Your task to perform on an android device: Show me productivity apps on the Play Store Image 0: 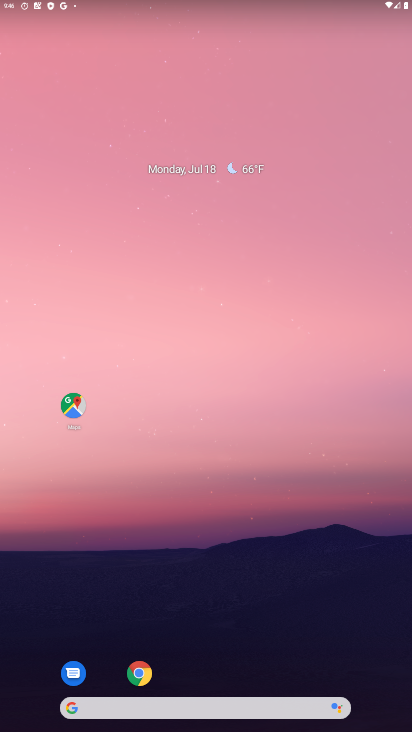
Step 0: drag from (226, 609) to (238, 116)
Your task to perform on an android device: Show me productivity apps on the Play Store Image 1: 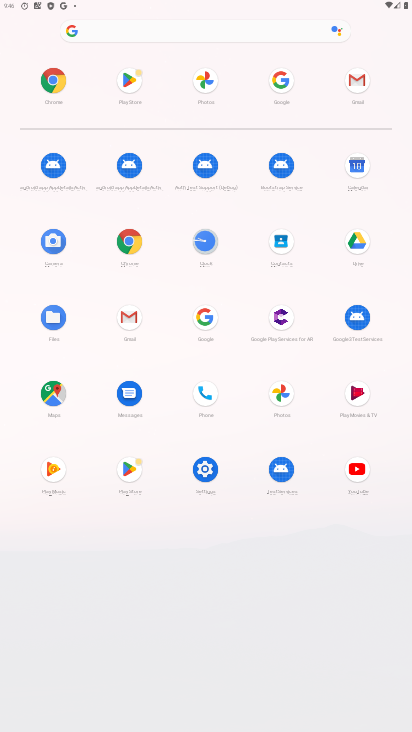
Step 1: click (132, 466)
Your task to perform on an android device: Show me productivity apps on the Play Store Image 2: 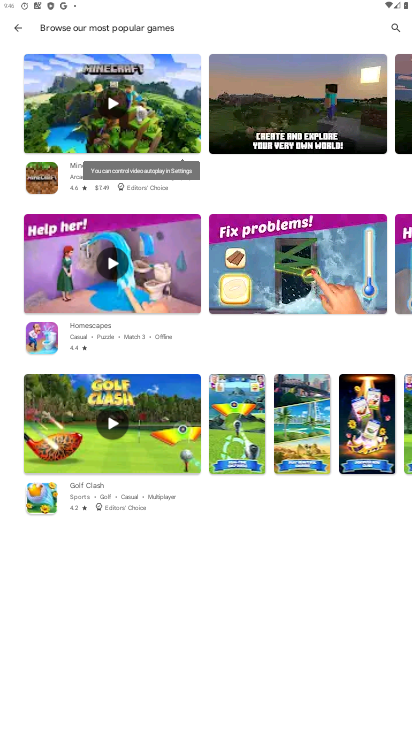
Step 2: press back button
Your task to perform on an android device: Show me productivity apps on the Play Store Image 3: 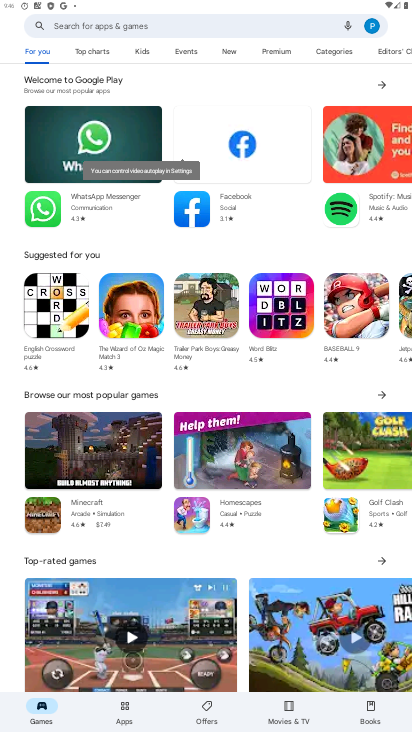
Step 3: click (130, 711)
Your task to perform on an android device: Show me productivity apps on the Play Store Image 4: 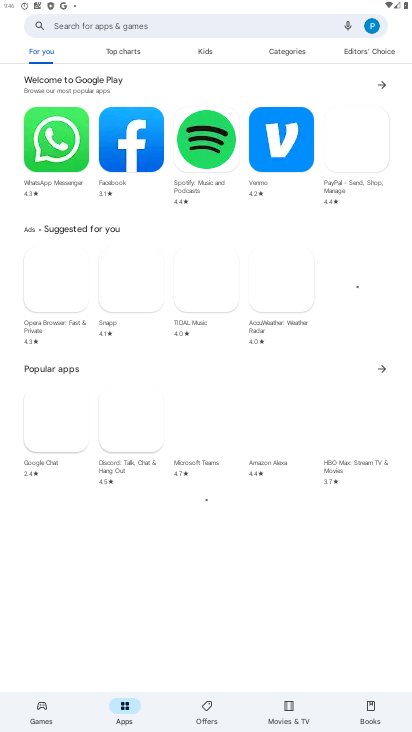
Step 4: click (278, 57)
Your task to perform on an android device: Show me productivity apps on the Play Store Image 5: 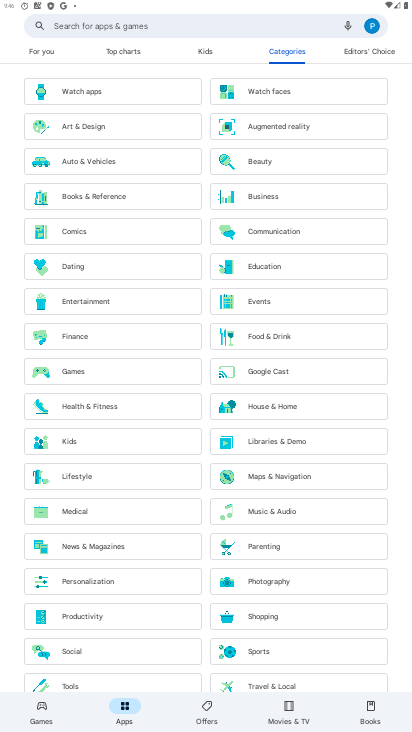
Step 5: click (99, 614)
Your task to perform on an android device: Show me productivity apps on the Play Store Image 6: 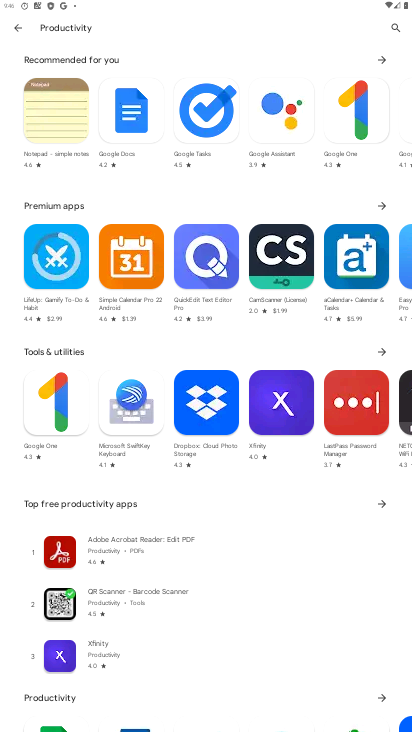
Step 6: task complete